Your task to perform on an android device: add a contact Image 0: 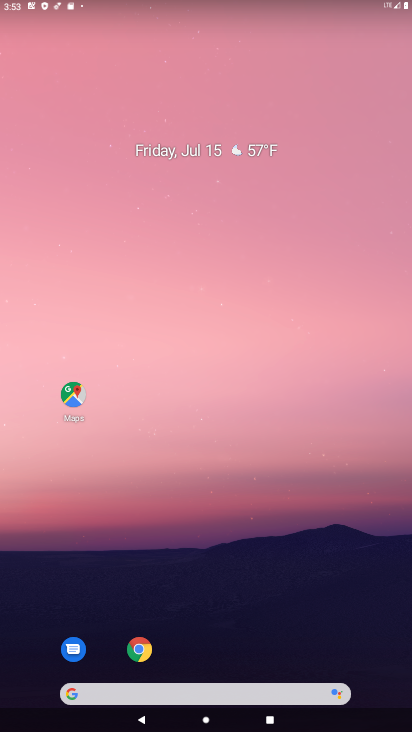
Step 0: drag from (233, 715) to (195, 113)
Your task to perform on an android device: add a contact Image 1: 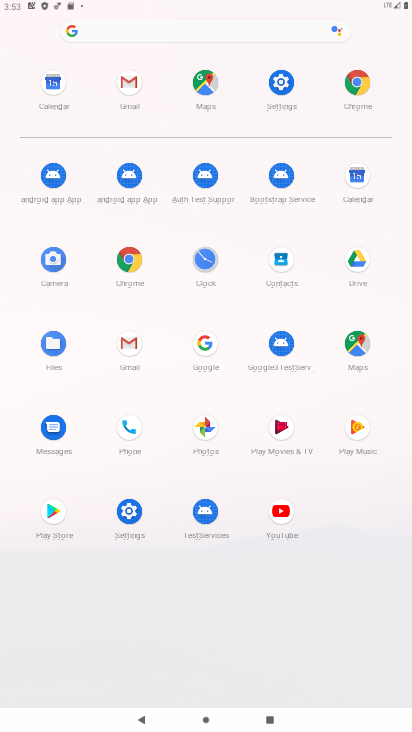
Step 1: click (290, 259)
Your task to perform on an android device: add a contact Image 2: 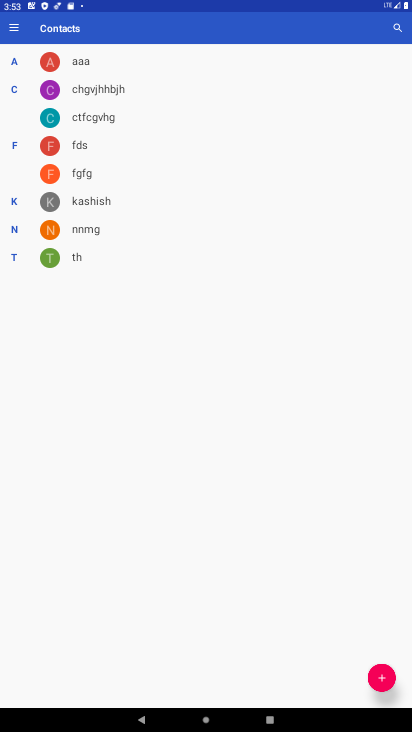
Step 2: click (387, 677)
Your task to perform on an android device: add a contact Image 3: 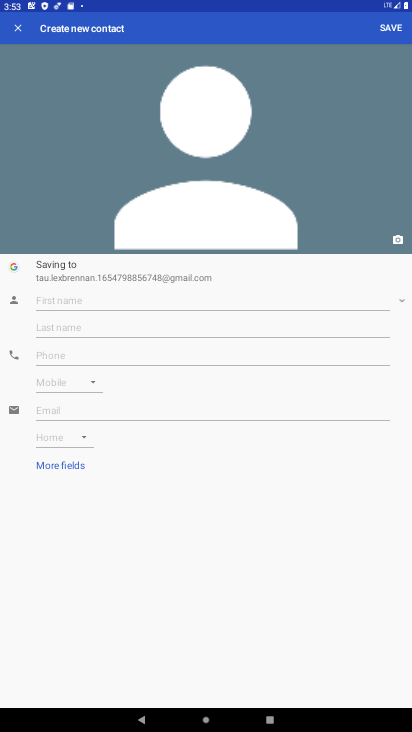
Step 3: click (101, 299)
Your task to perform on an android device: add a contact Image 4: 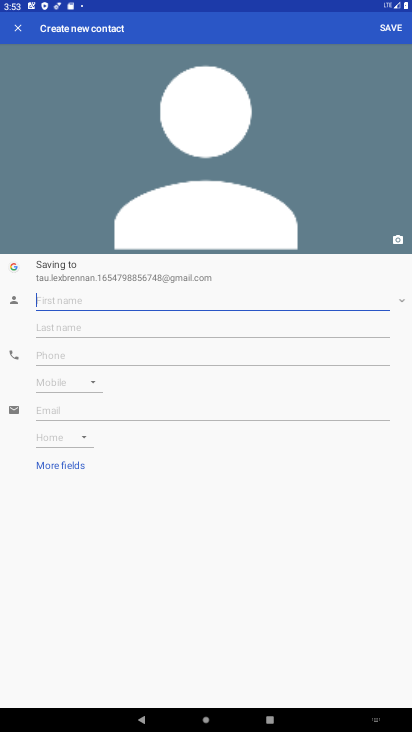
Step 4: type "vikrmaditiya"
Your task to perform on an android device: add a contact Image 5: 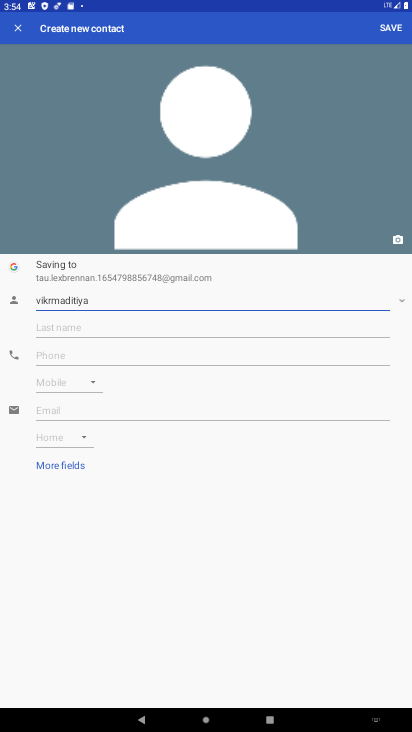
Step 5: click (80, 355)
Your task to perform on an android device: add a contact Image 6: 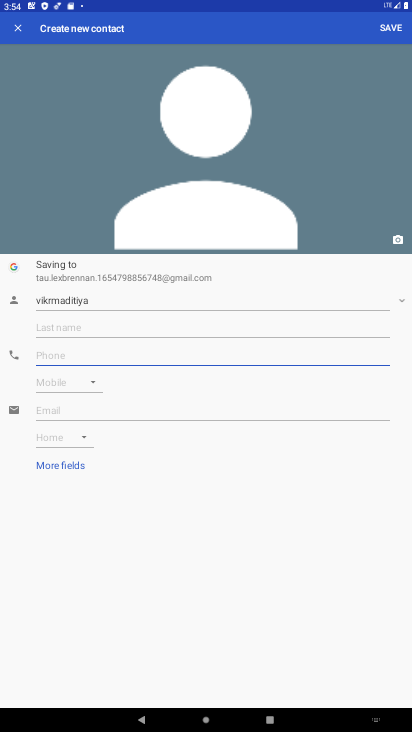
Step 6: type "8987665"
Your task to perform on an android device: add a contact Image 7: 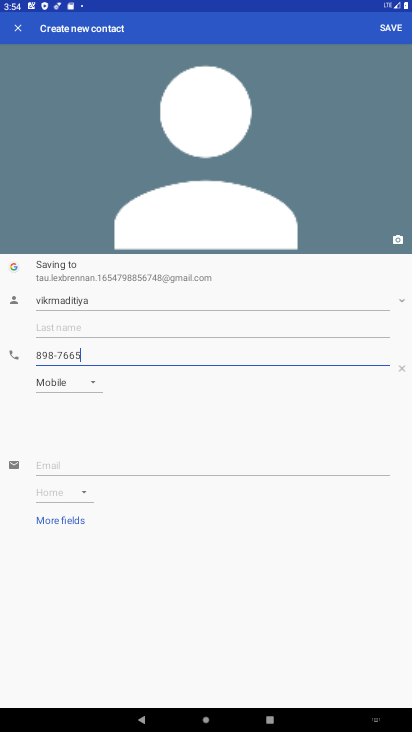
Step 7: type ""
Your task to perform on an android device: add a contact Image 8: 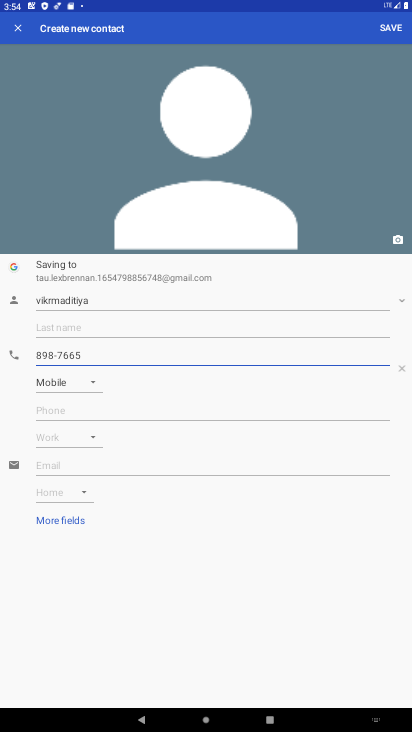
Step 8: click (394, 26)
Your task to perform on an android device: add a contact Image 9: 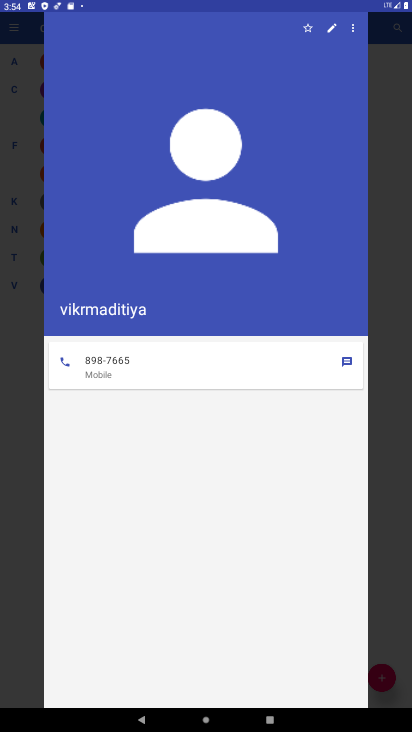
Step 9: task complete